Your task to perform on an android device: Open the stopwatch Image 0: 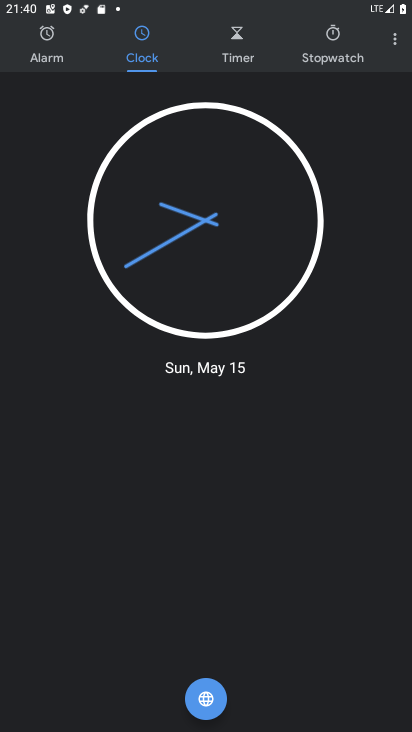
Step 0: click (345, 47)
Your task to perform on an android device: Open the stopwatch Image 1: 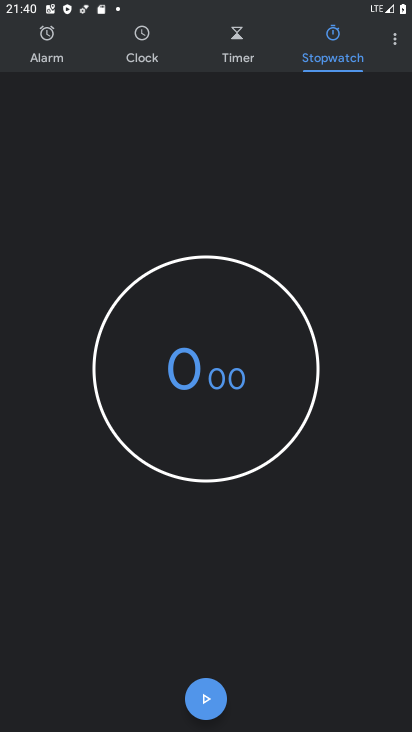
Step 1: task complete